Your task to perform on an android device: Show me popular videos on Youtube Image 0: 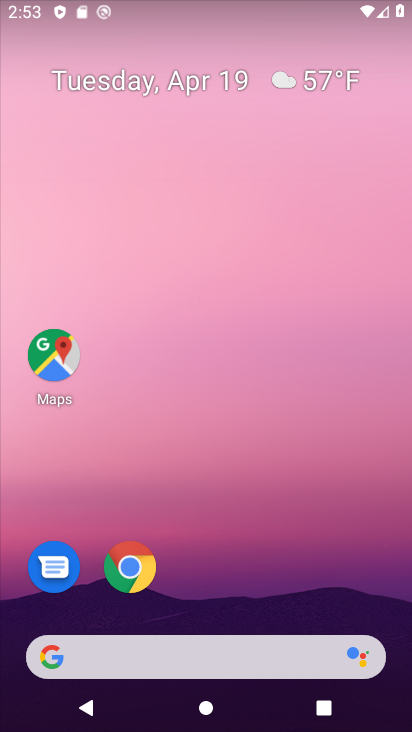
Step 0: drag from (378, 590) to (379, 110)
Your task to perform on an android device: Show me popular videos on Youtube Image 1: 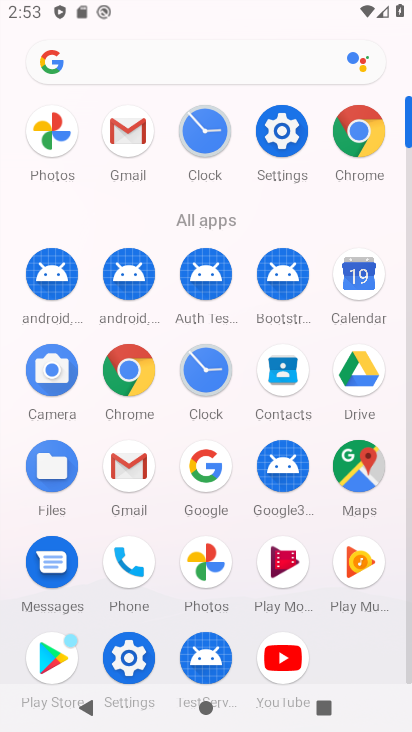
Step 1: click (280, 655)
Your task to perform on an android device: Show me popular videos on Youtube Image 2: 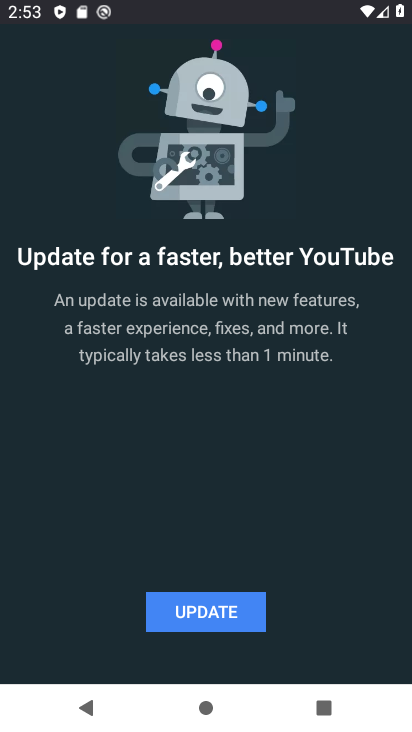
Step 2: click (214, 618)
Your task to perform on an android device: Show me popular videos on Youtube Image 3: 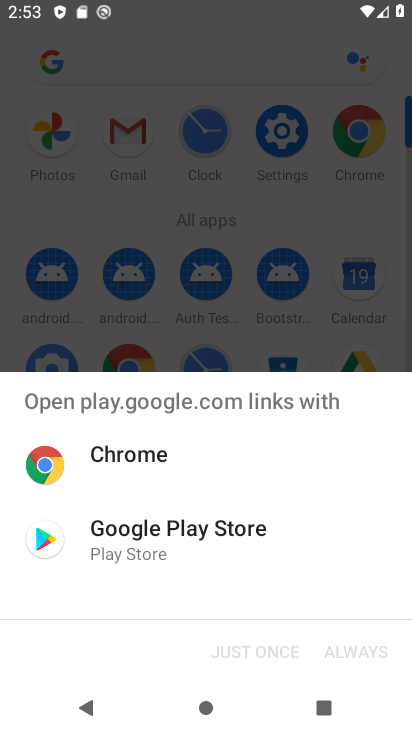
Step 3: click (137, 535)
Your task to perform on an android device: Show me popular videos on Youtube Image 4: 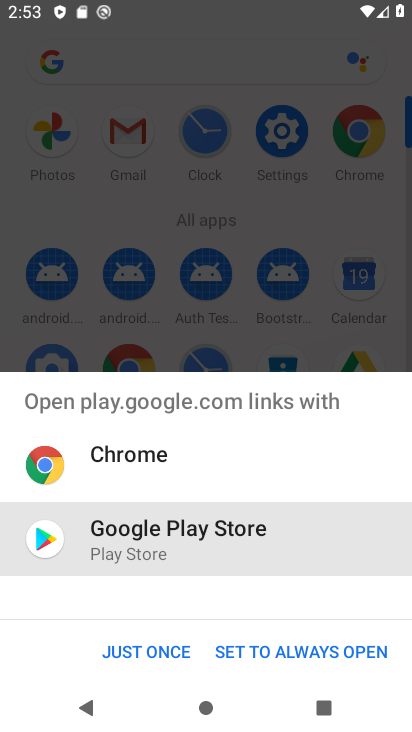
Step 4: click (158, 657)
Your task to perform on an android device: Show me popular videos on Youtube Image 5: 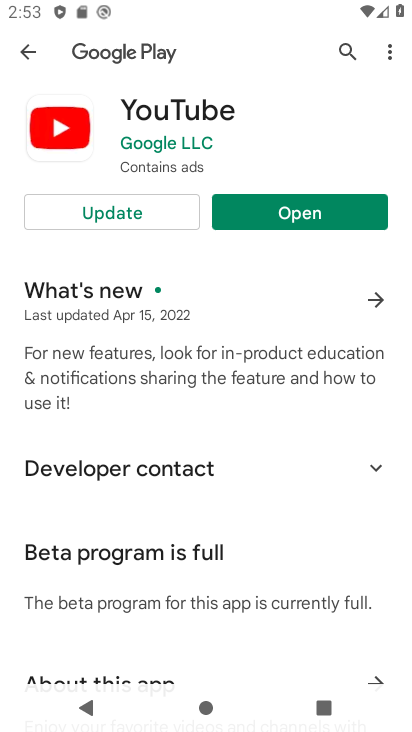
Step 5: click (142, 214)
Your task to perform on an android device: Show me popular videos on Youtube Image 6: 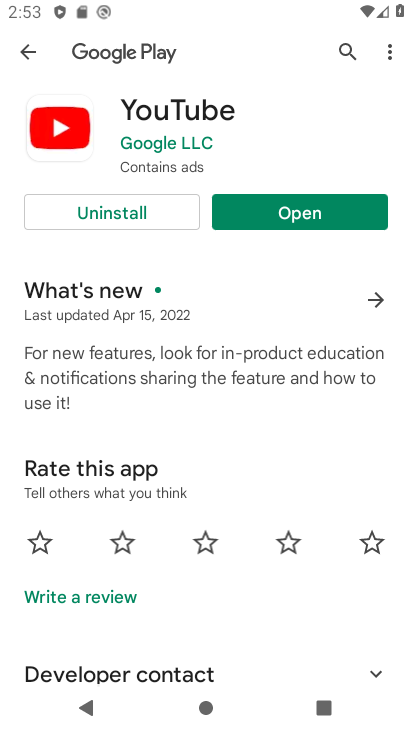
Step 6: click (318, 206)
Your task to perform on an android device: Show me popular videos on Youtube Image 7: 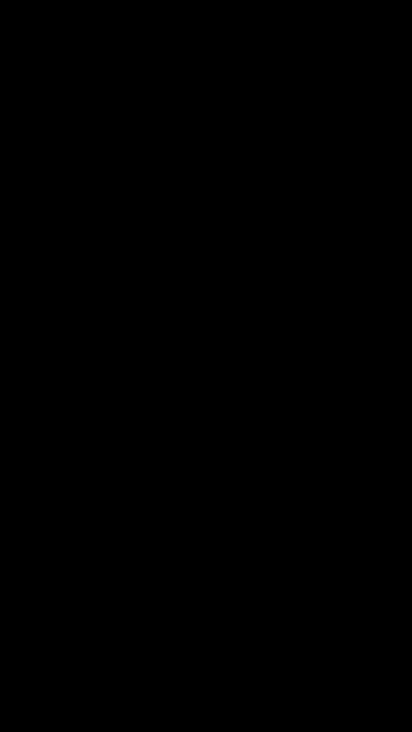
Step 7: task complete